Your task to perform on an android device: add a label to a message in the gmail app Image 0: 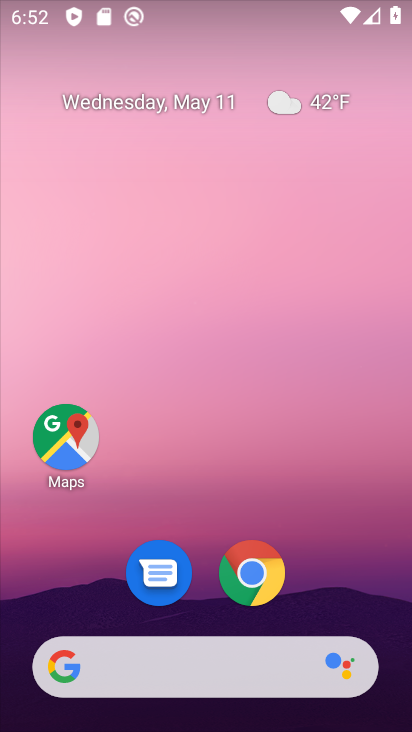
Step 0: drag from (309, 470) to (304, 201)
Your task to perform on an android device: add a label to a message in the gmail app Image 1: 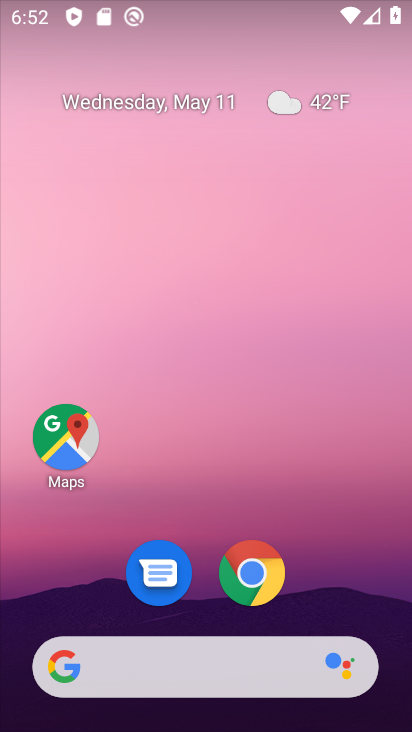
Step 1: drag from (302, 614) to (275, 180)
Your task to perform on an android device: add a label to a message in the gmail app Image 2: 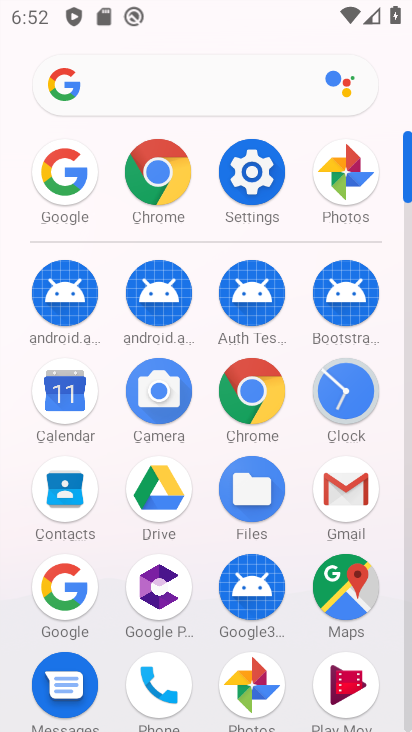
Step 2: click (345, 510)
Your task to perform on an android device: add a label to a message in the gmail app Image 3: 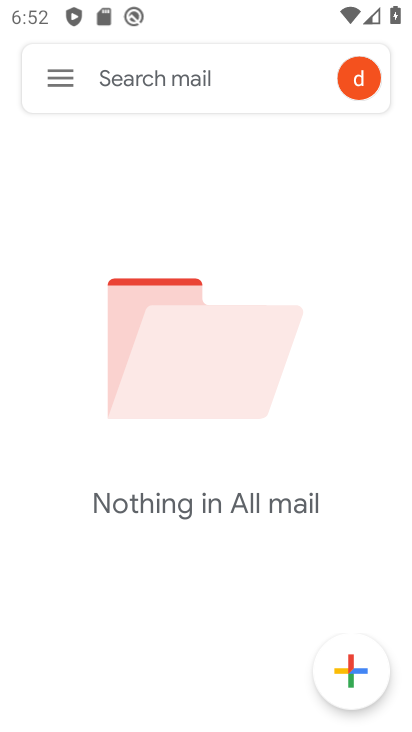
Step 3: click (63, 81)
Your task to perform on an android device: add a label to a message in the gmail app Image 4: 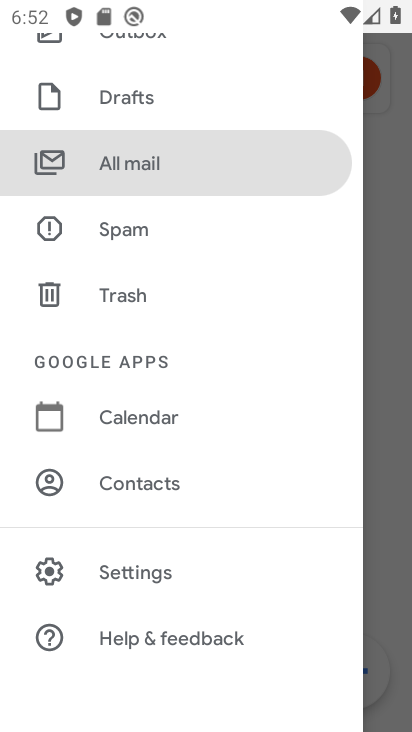
Step 4: click (131, 176)
Your task to perform on an android device: add a label to a message in the gmail app Image 5: 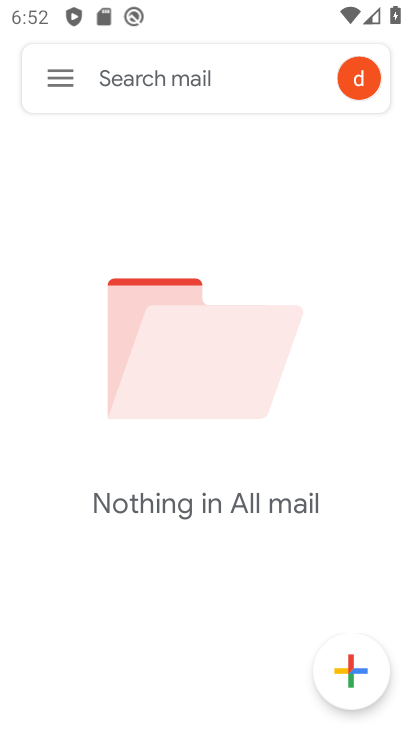
Step 5: task complete